Your task to perform on an android device: check battery use Image 0: 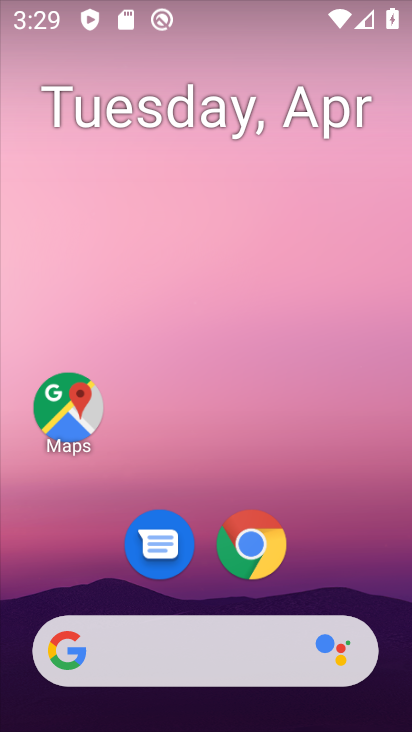
Step 0: drag from (299, 580) to (283, 124)
Your task to perform on an android device: check battery use Image 1: 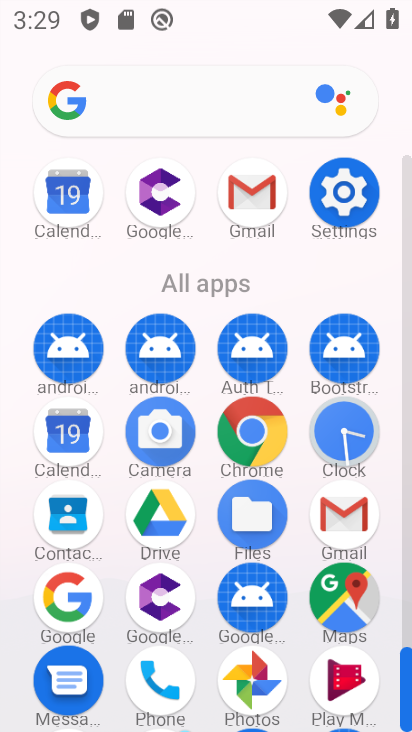
Step 1: click (336, 216)
Your task to perform on an android device: check battery use Image 2: 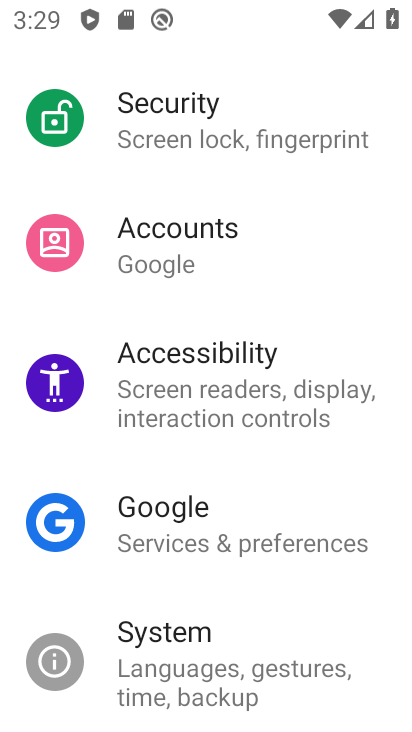
Step 2: drag from (217, 332) to (218, 639)
Your task to perform on an android device: check battery use Image 3: 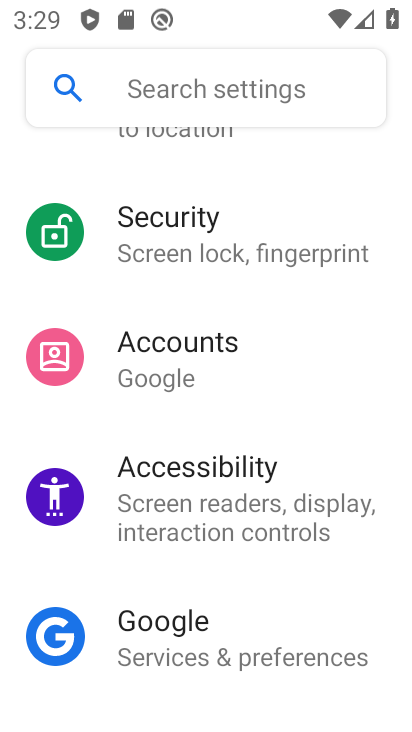
Step 3: drag from (225, 245) to (208, 612)
Your task to perform on an android device: check battery use Image 4: 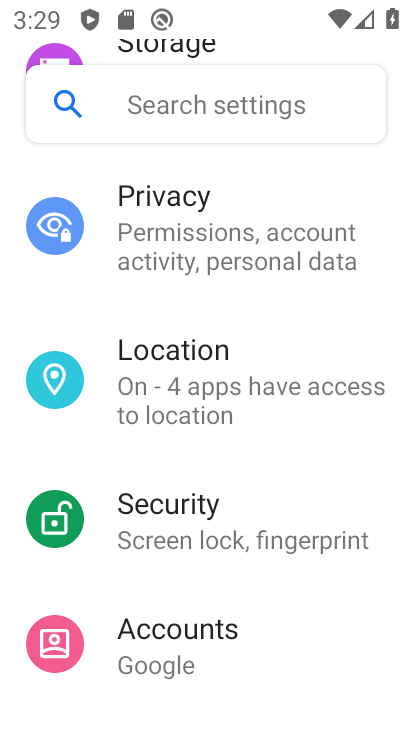
Step 4: drag from (262, 339) to (263, 621)
Your task to perform on an android device: check battery use Image 5: 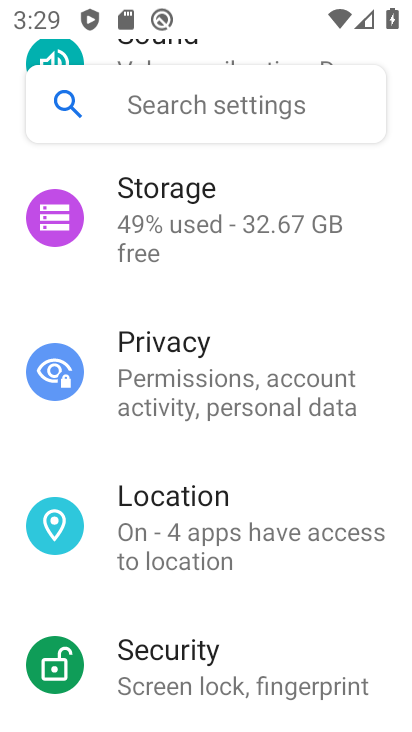
Step 5: drag from (276, 314) to (264, 640)
Your task to perform on an android device: check battery use Image 6: 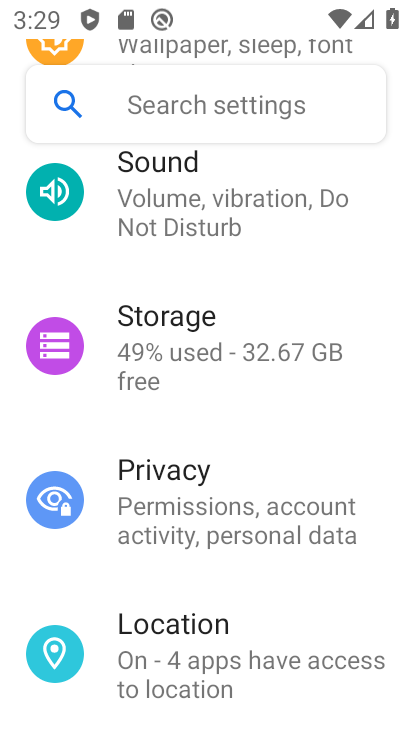
Step 6: drag from (254, 341) to (206, 620)
Your task to perform on an android device: check battery use Image 7: 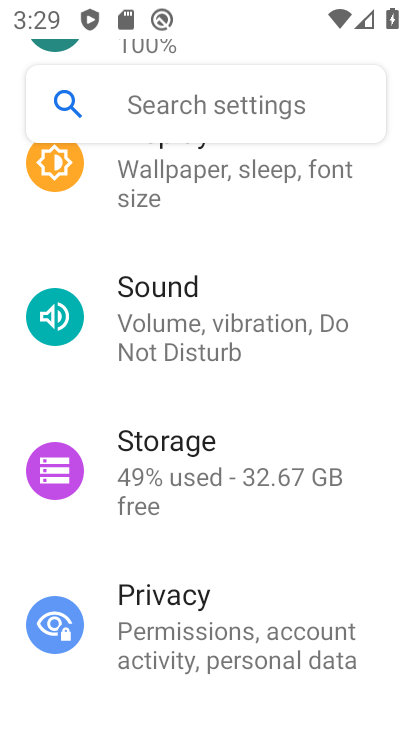
Step 7: drag from (225, 266) to (209, 570)
Your task to perform on an android device: check battery use Image 8: 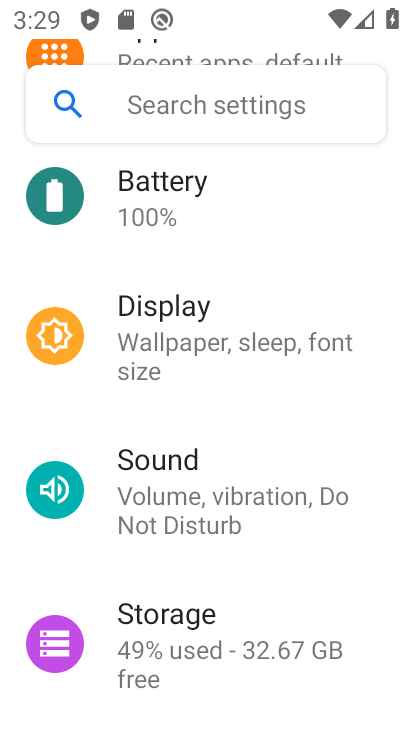
Step 8: click (193, 196)
Your task to perform on an android device: check battery use Image 9: 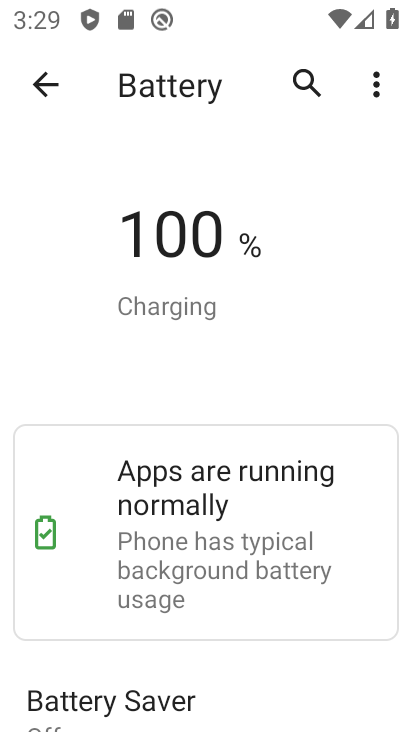
Step 9: task complete